Your task to perform on an android device: Open settings Image 0: 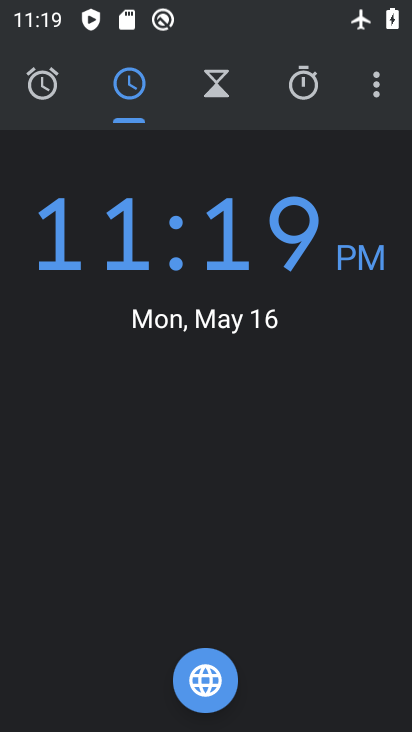
Step 0: press home button
Your task to perform on an android device: Open settings Image 1: 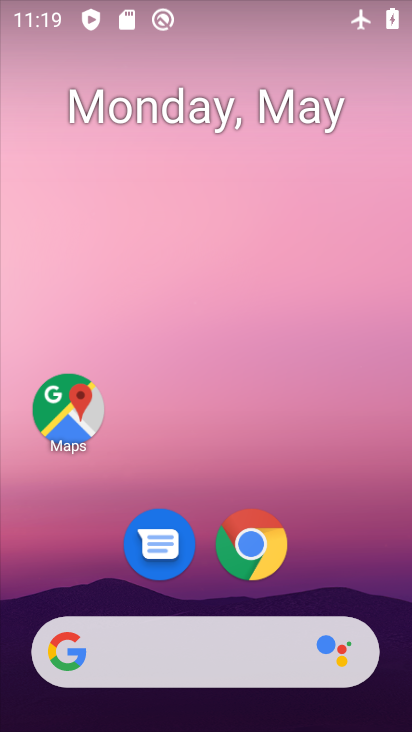
Step 1: drag from (358, 454) to (350, 170)
Your task to perform on an android device: Open settings Image 2: 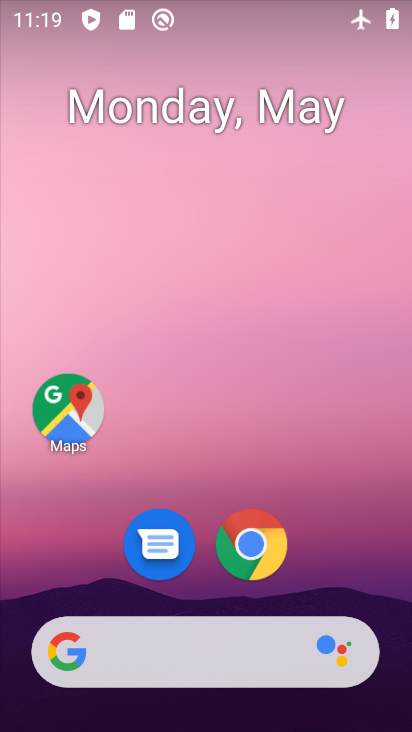
Step 2: drag from (348, 596) to (342, 208)
Your task to perform on an android device: Open settings Image 3: 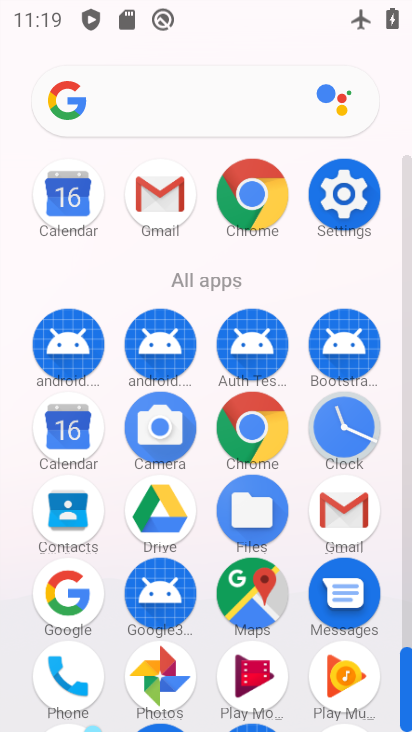
Step 3: click (349, 186)
Your task to perform on an android device: Open settings Image 4: 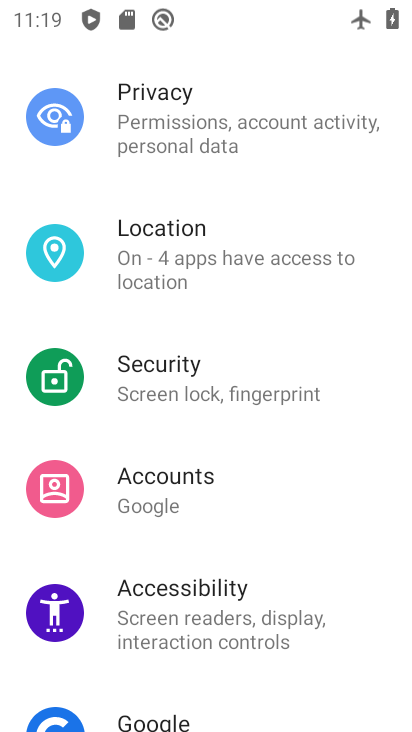
Step 4: task complete